Your task to perform on an android device: open the mobile data screen to see how much data has been used Image 0: 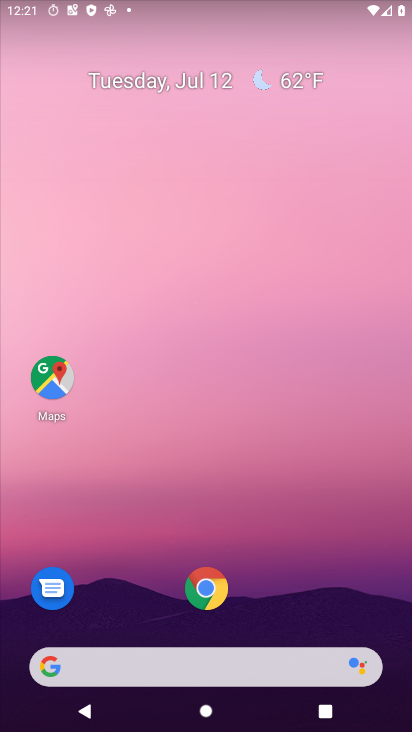
Step 0: drag from (182, 321) to (170, 17)
Your task to perform on an android device: open the mobile data screen to see how much data has been used Image 1: 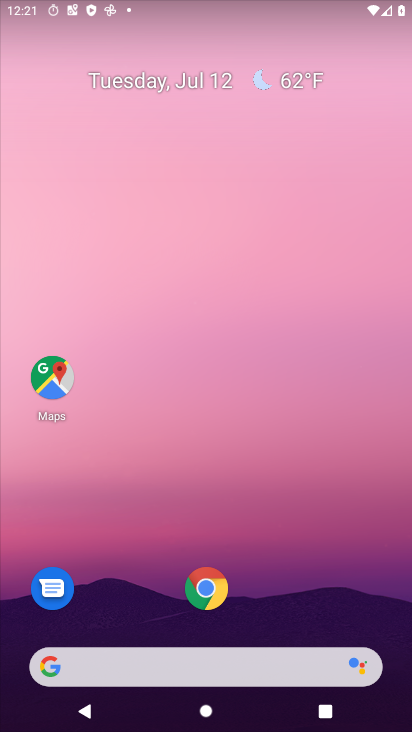
Step 1: drag from (217, 140) to (223, 10)
Your task to perform on an android device: open the mobile data screen to see how much data has been used Image 2: 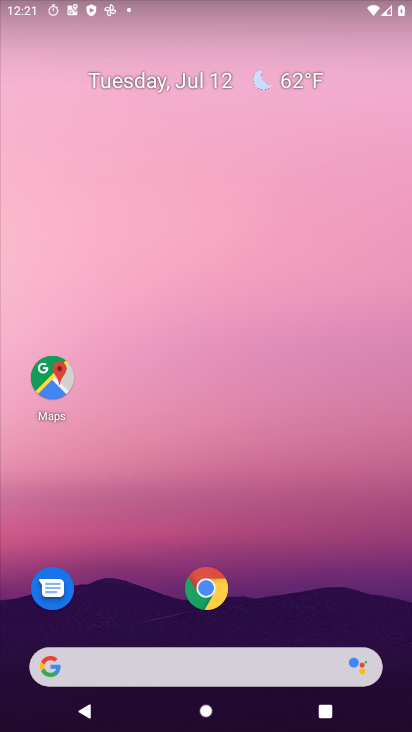
Step 2: drag from (207, 461) to (206, 31)
Your task to perform on an android device: open the mobile data screen to see how much data has been used Image 3: 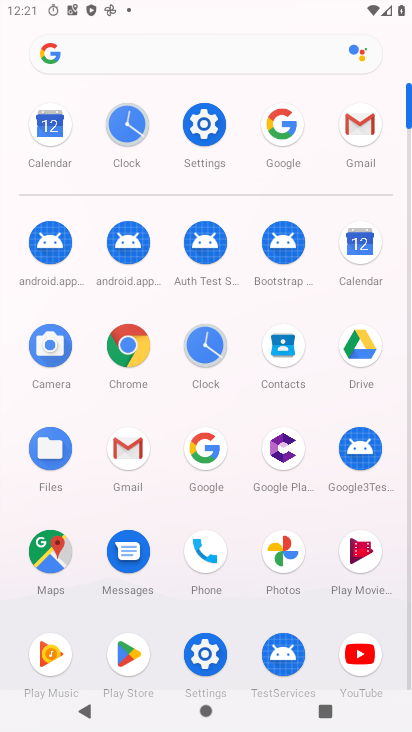
Step 3: click (197, 131)
Your task to perform on an android device: open the mobile data screen to see how much data has been used Image 4: 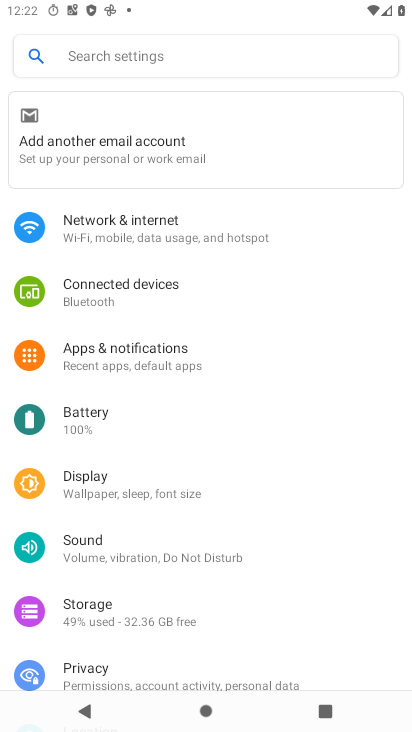
Step 4: click (122, 229)
Your task to perform on an android device: open the mobile data screen to see how much data has been used Image 5: 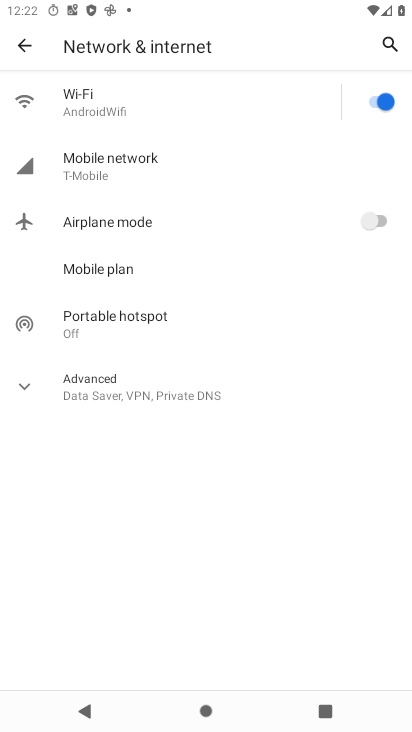
Step 5: click (120, 168)
Your task to perform on an android device: open the mobile data screen to see how much data has been used Image 6: 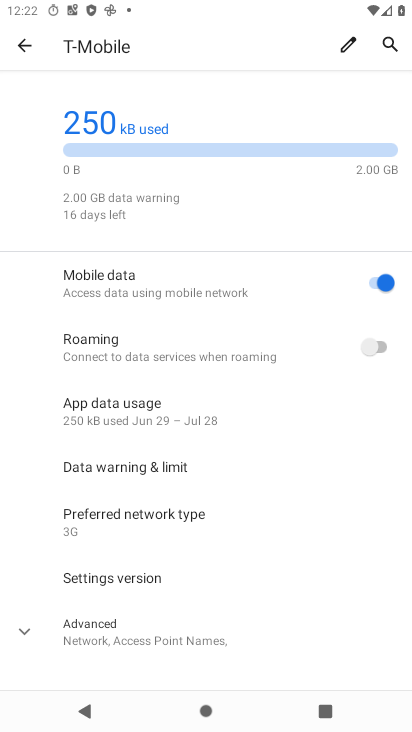
Step 6: task complete